Your task to perform on an android device: toggle notifications settings in the gmail app Image 0: 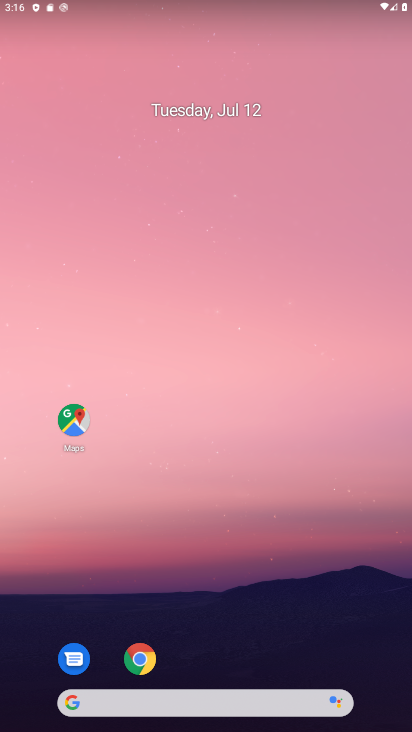
Step 0: drag from (218, 648) to (202, 111)
Your task to perform on an android device: toggle notifications settings in the gmail app Image 1: 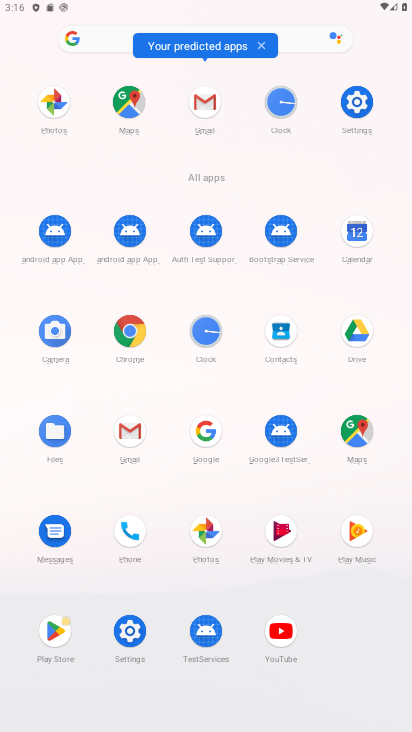
Step 1: click (128, 429)
Your task to perform on an android device: toggle notifications settings in the gmail app Image 2: 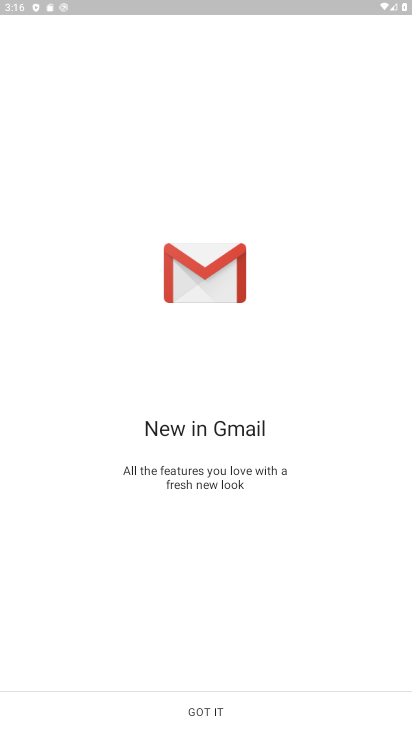
Step 2: click (199, 713)
Your task to perform on an android device: toggle notifications settings in the gmail app Image 3: 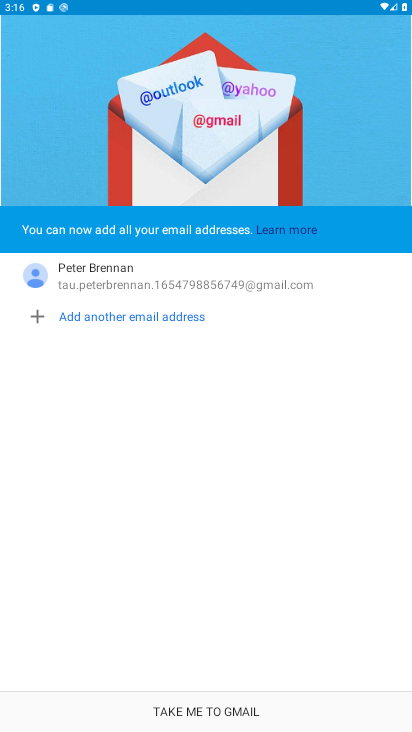
Step 3: click (199, 713)
Your task to perform on an android device: toggle notifications settings in the gmail app Image 4: 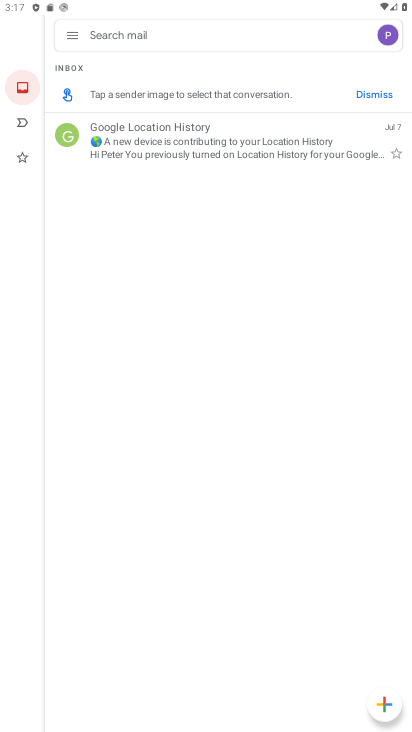
Step 4: click (68, 38)
Your task to perform on an android device: toggle notifications settings in the gmail app Image 5: 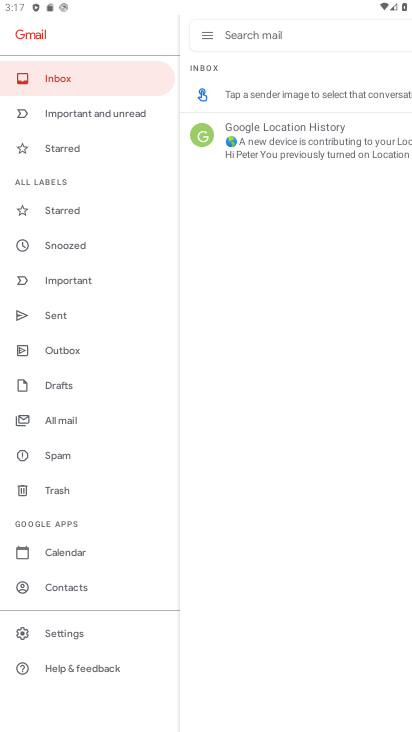
Step 5: click (73, 627)
Your task to perform on an android device: toggle notifications settings in the gmail app Image 6: 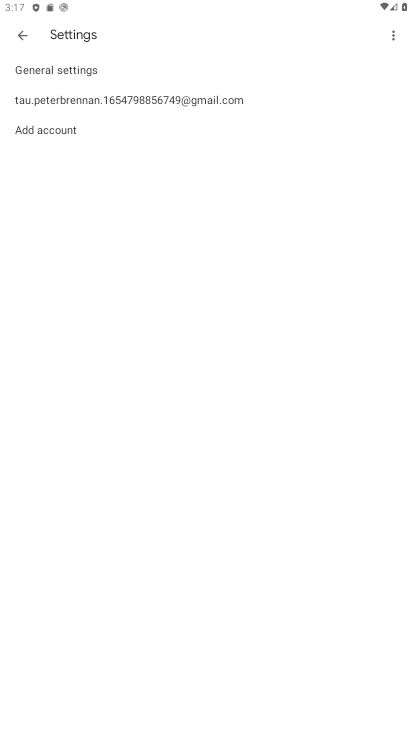
Step 6: click (72, 100)
Your task to perform on an android device: toggle notifications settings in the gmail app Image 7: 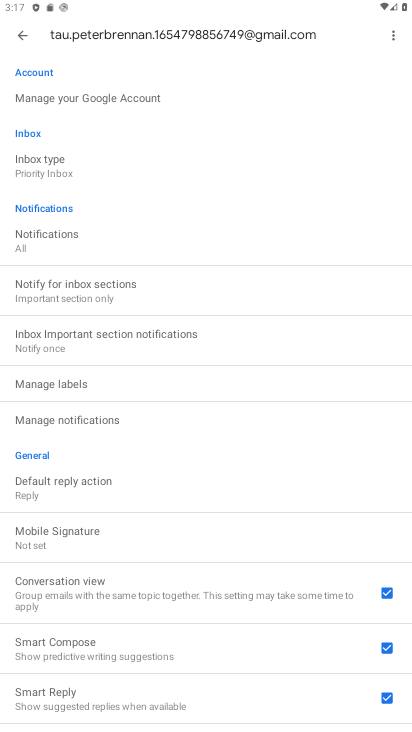
Step 7: click (66, 242)
Your task to perform on an android device: toggle notifications settings in the gmail app Image 8: 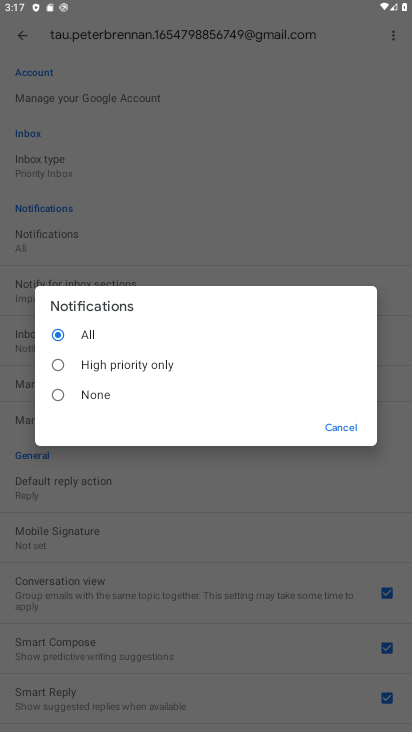
Step 8: click (57, 396)
Your task to perform on an android device: toggle notifications settings in the gmail app Image 9: 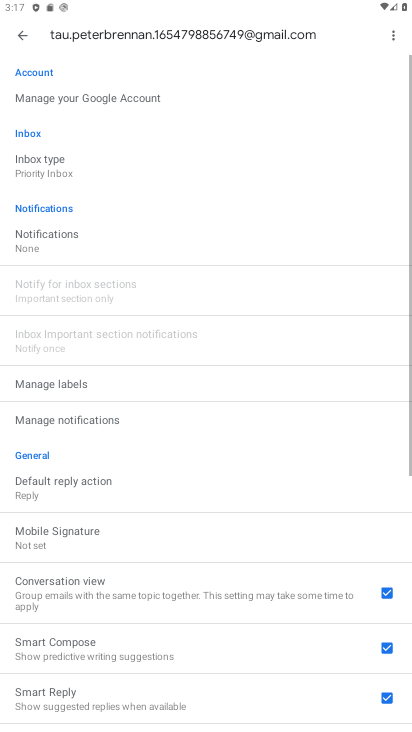
Step 9: task complete